Your task to perform on an android device: turn off improve location accuracy Image 0: 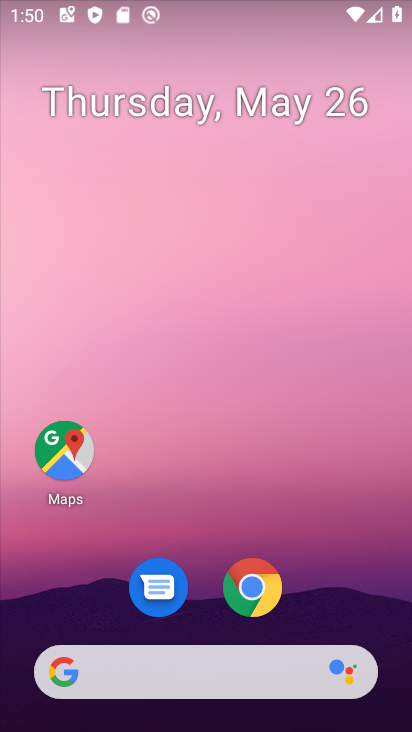
Step 0: drag from (322, 528) to (259, 141)
Your task to perform on an android device: turn off improve location accuracy Image 1: 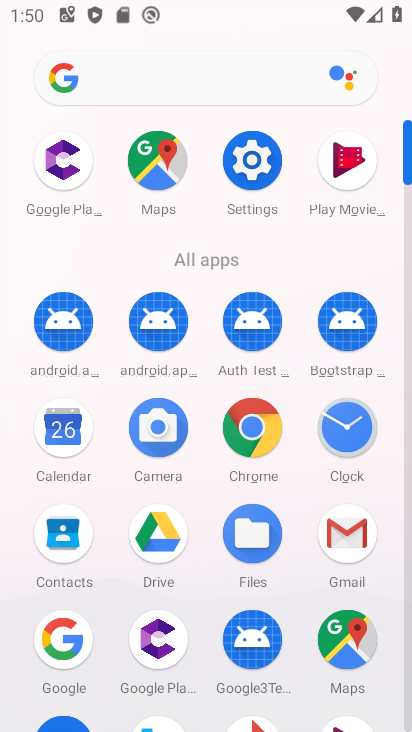
Step 1: click (245, 166)
Your task to perform on an android device: turn off improve location accuracy Image 2: 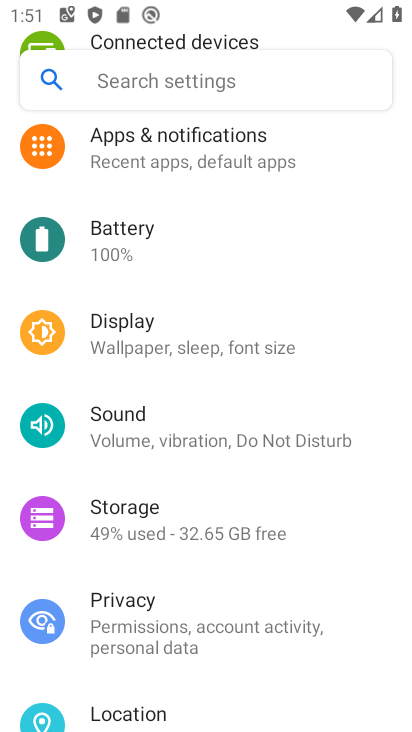
Step 2: drag from (258, 261) to (261, 691)
Your task to perform on an android device: turn off improve location accuracy Image 3: 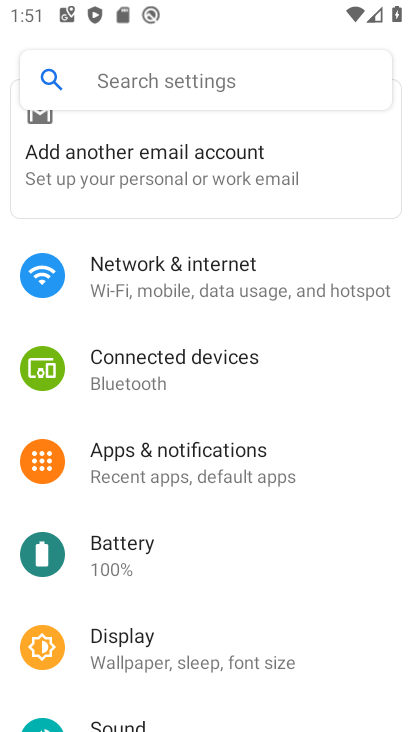
Step 3: drag from (234, 629) to (297, 64)
Your task to perform on an android device: turn off improve location accuracy Image 4: 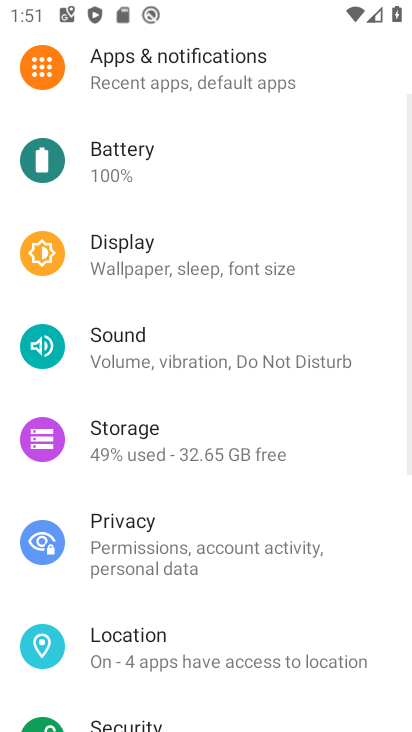
Step 4: drag from (233, 623) to (267, 193)
Your task to perform on an android device: turn off improve location accuracy Image 5: 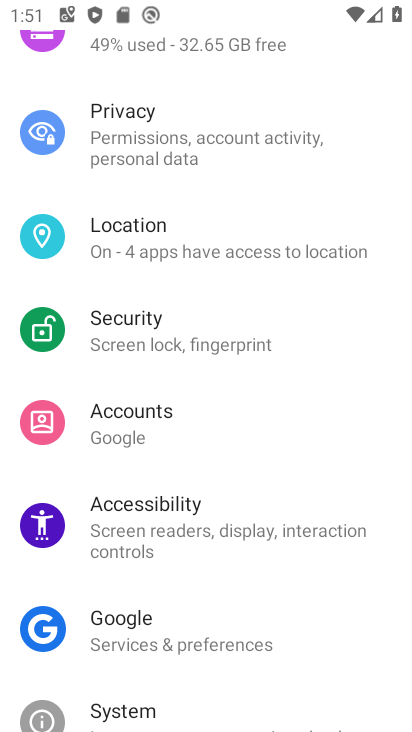
Step 5: click (186, 240)
Your task to perform on an android device: turn off improve location accuracy Image 6: 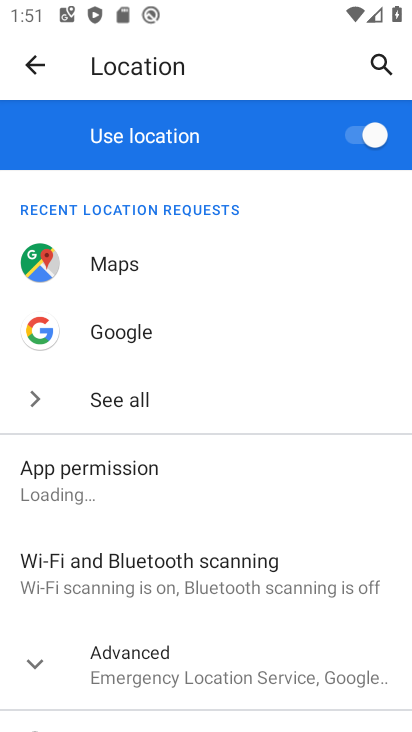
Step 6: drag from (240, 602) to (302, 174)
Your task to perform on an android device: turn off improve location accuracy Image 7: 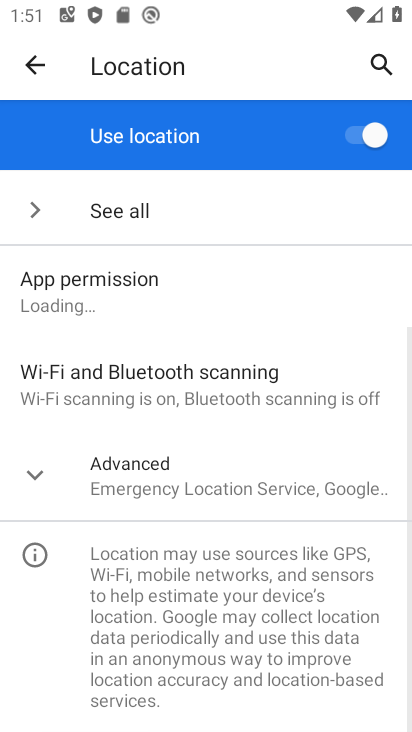
Step 7: click (165, 508)
Your task to perform on an android device: turn off improve location accuracy Image 8: 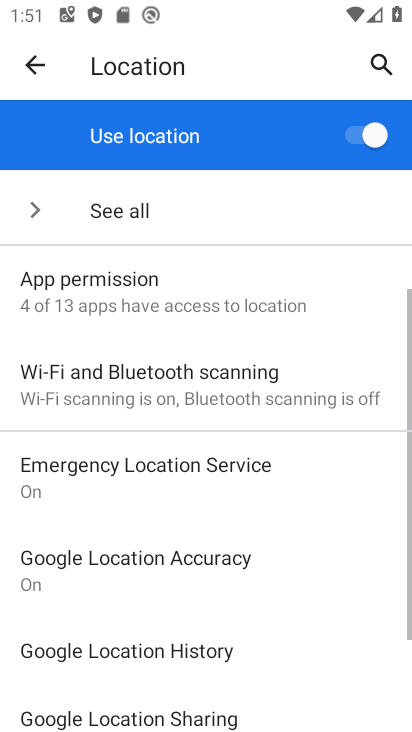
Step 8: drag from (241, 606) to (291, 320)
Your task to perform on an android device: turn off improve location accuracy Image 9: 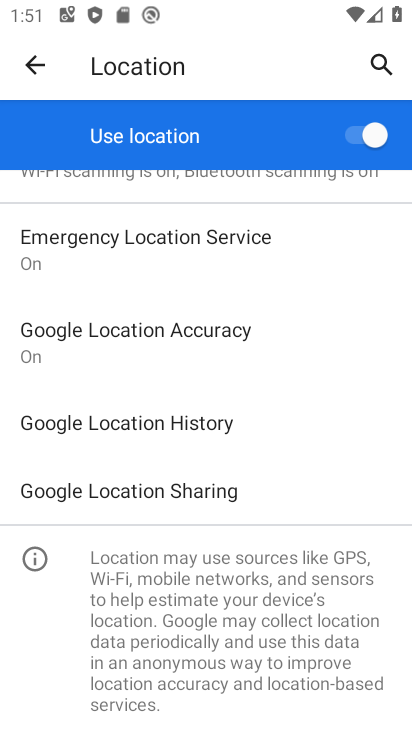
Step 9: click (231, 350)
Your task to perform on an android device: turn off improve location accuracy Image 10: 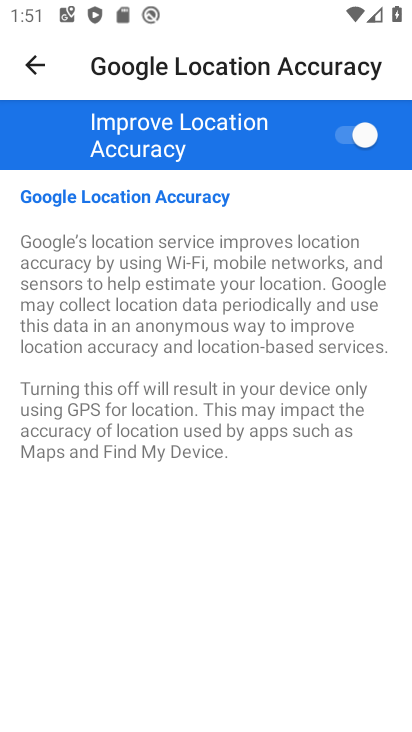
Step 10: click (351, 136)
Your task to perform on an android device: turn off improve location accuracy Image 11: 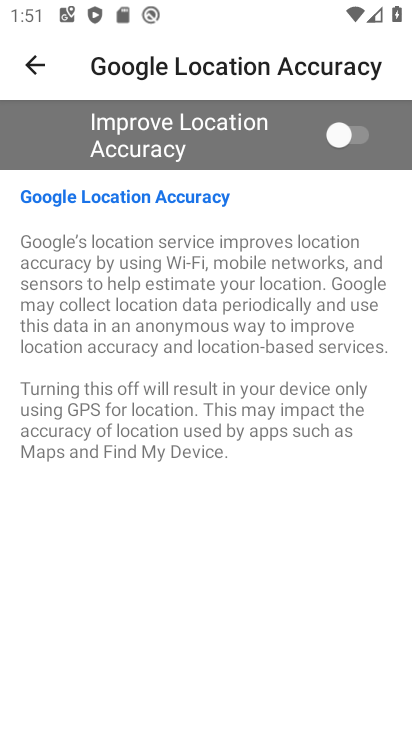
Step 11: task complete